Your task to perform on an android device: delete browsing data in the chrome app Image 0: 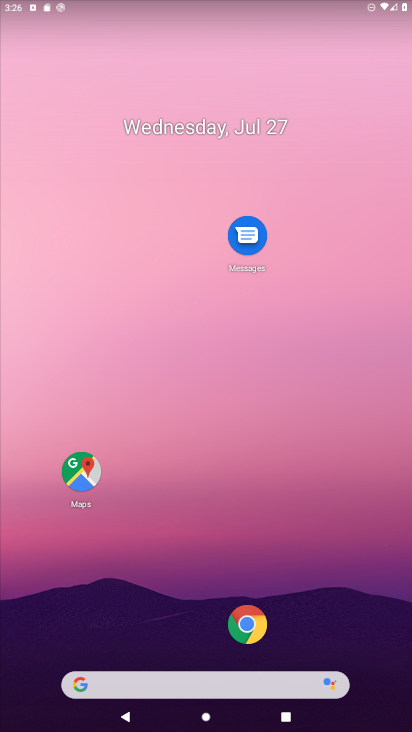
Step 0: click (236, 622)
Your task to perform on an android device: delete browsing data in the chrome app Image 1: 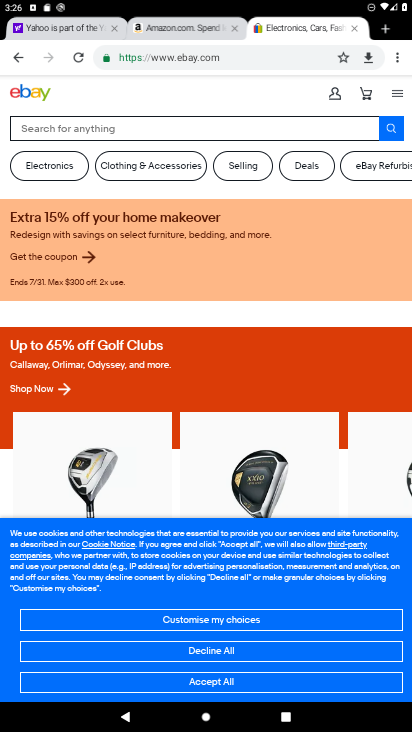
Step 1: click (407, 55)
Your task to perform on an android device: delete browsing data in the chrome app Image 2: 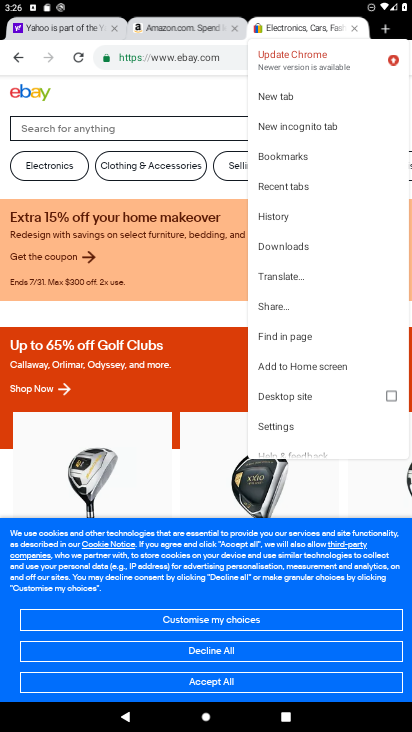
Step 2: click (276, 218)
Your task to perform on an android device: delete browsing data in the chrome app Image 3: 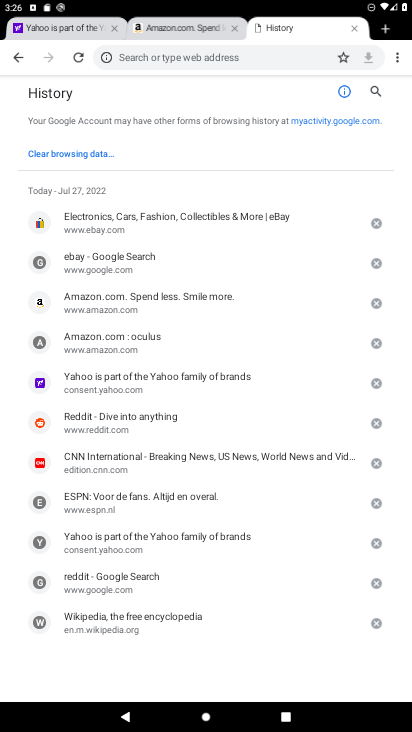
Step 3: click (79, 152)
Your task to perform on an android device: delete browsing data in the chrome app Image 4: 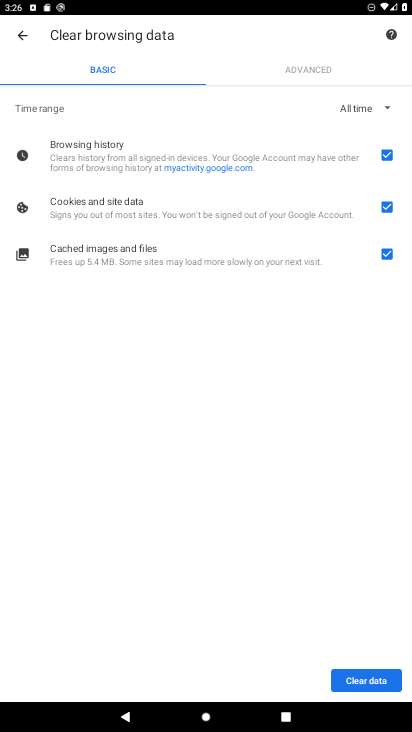
Step 4: click (388, 207)
Your task to perform on an android device: delete browsing data in the chrome app Image 5: 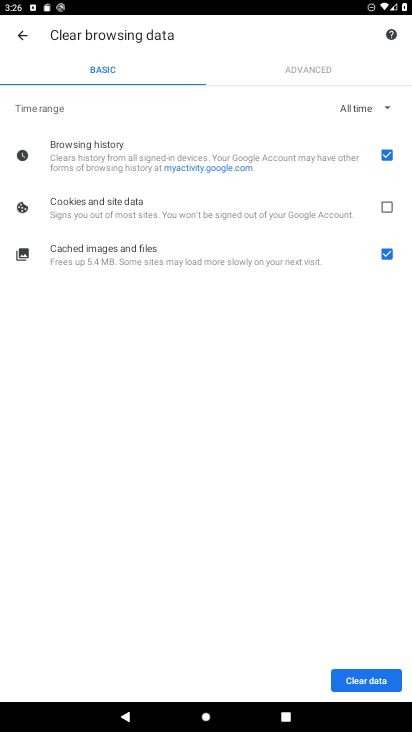
Step 5: click (383, 258)
Your task to perform on an android device: delete browsing data in the chrome app Image 6: 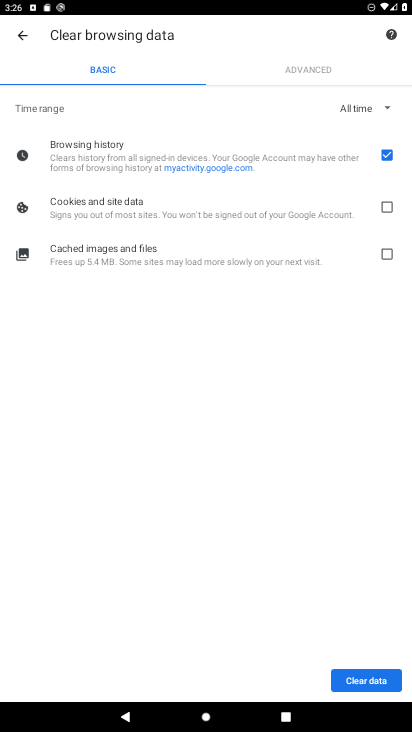
Step 6: click (353, 689)
Your task to perform on an android device: delete browsing data in the chrome app Image 7: 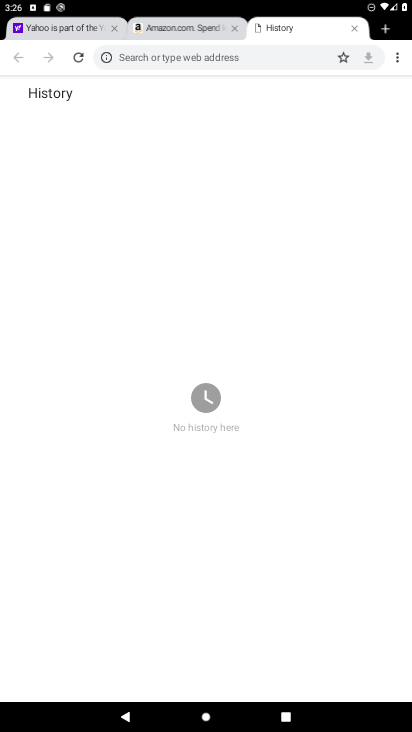
Step 7: click (353, 689)
Your task to perform on an android device: delete browsing data in the chrome app Image 8: 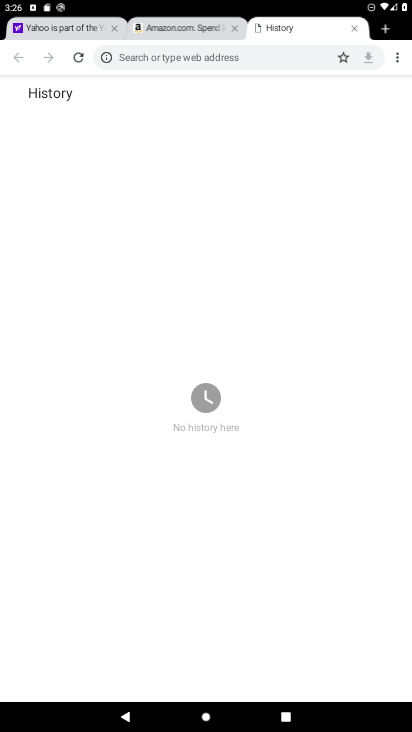
Step 8: task complete